Your task to perform on an android device: turn on translation in the chrome app Image 0: 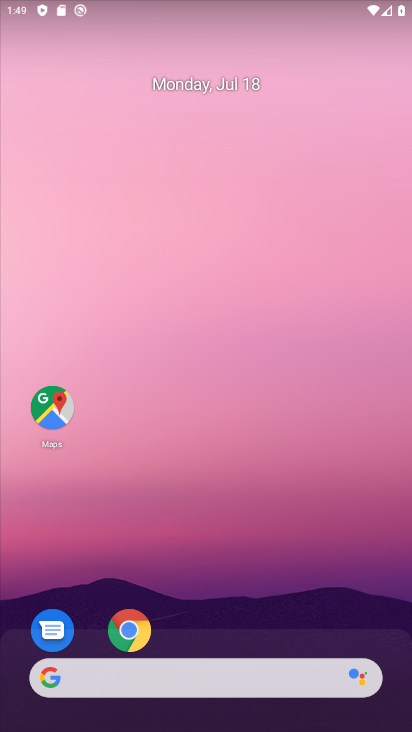
Step 0: click (135, 627)
Your task to perform on an android device: turn on translation in the chrome app Image 1: 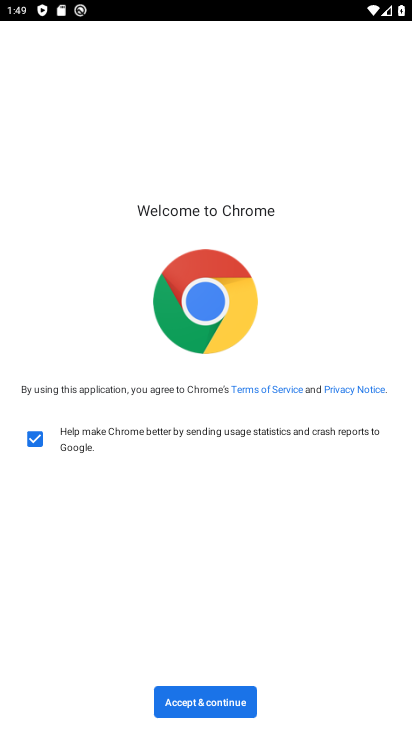
Step 1: click (209, 698)
Your task to perform on an android device: turn on translation in the chrome app Image 2: 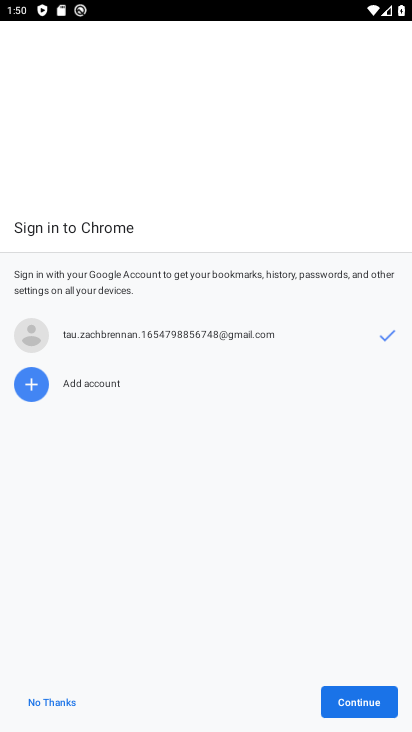
Step 2: click (376, 705)
Your task to perform on an android device: turn on translation in the chrome app Image 3: 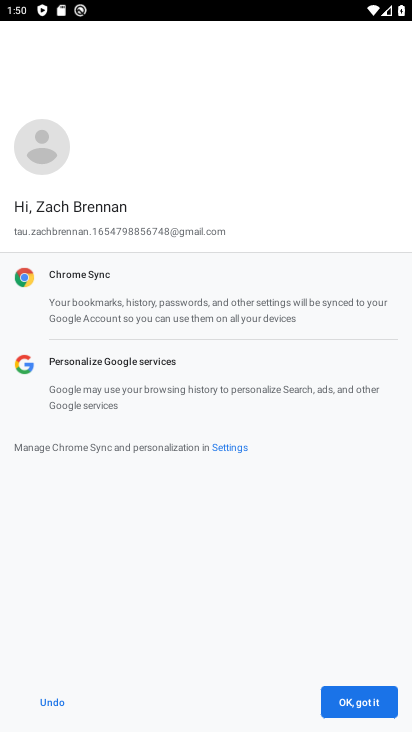
Step 3: click (351, 702)
Your task to perform on an android device: turn on translation in the chrome app Image 4: 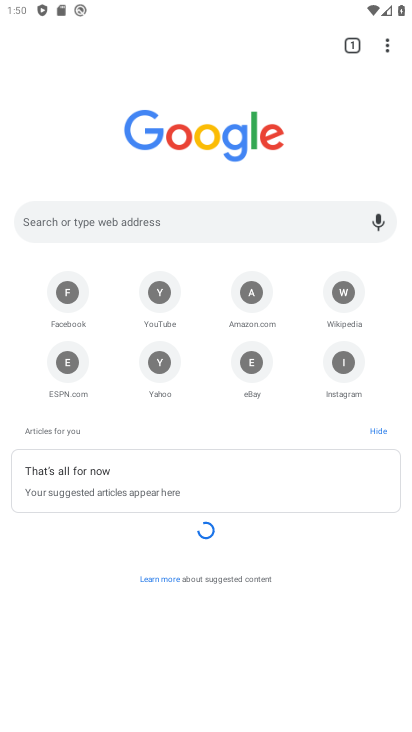
Step 4: click (386, 54)
Your task to perform on an android device: turn on translation in the chrome app Image 5: 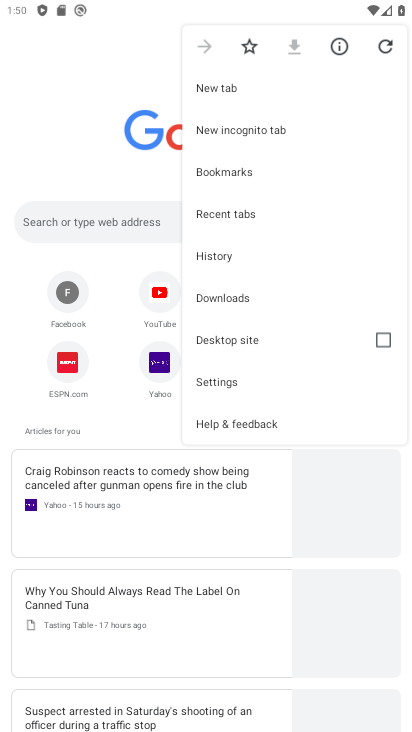
Step 5: click (220, 378)
Your task to perform on an android device: turn on translation in the chrome app Image 6: 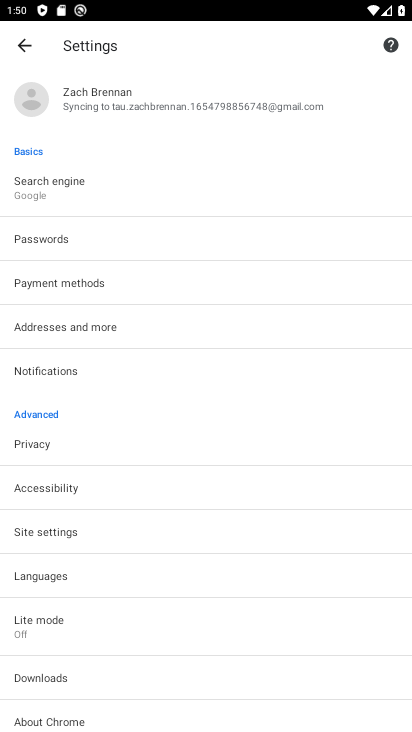
Step 6: click (52, 582)
Your task to perform on an android device: turn on translation in the chrome app Image 7: 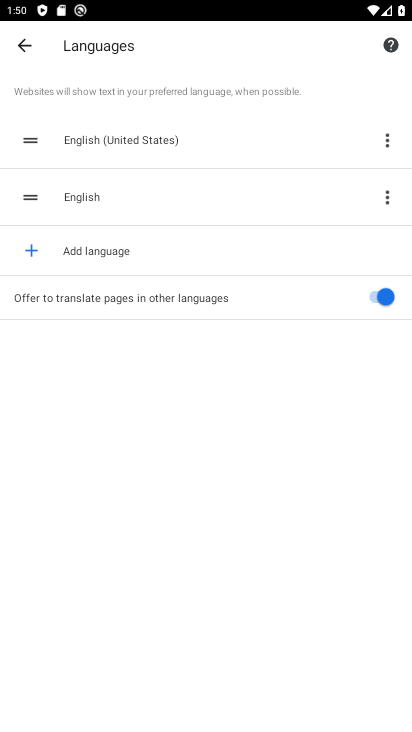
Step 7: task complete